Your task to perform on an android device: Open Wikipedia Image 0: 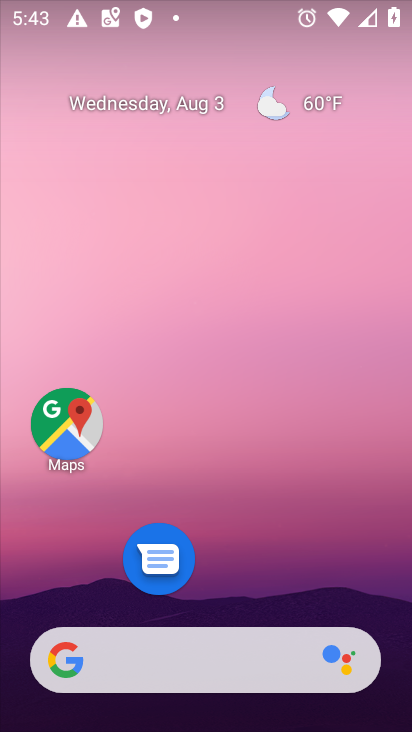
Step 0: drag from (238, 622) to (249, 122)
Your task to perform on an android device: Open Wikipedia Image 1: 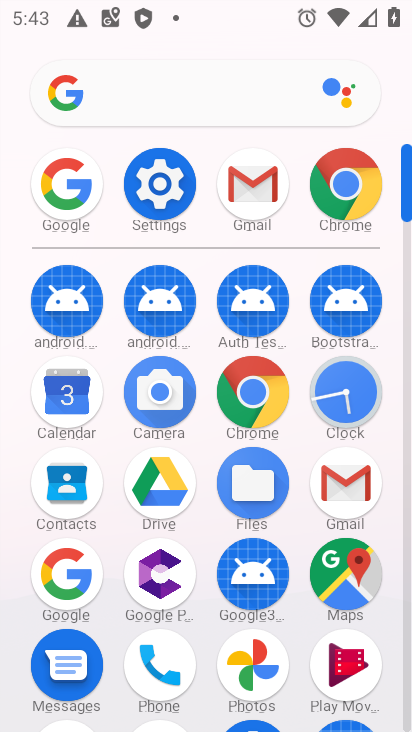
Step 1: click (261, 393)
Your task to perform on an android device: Open Wikipedia Image 2: 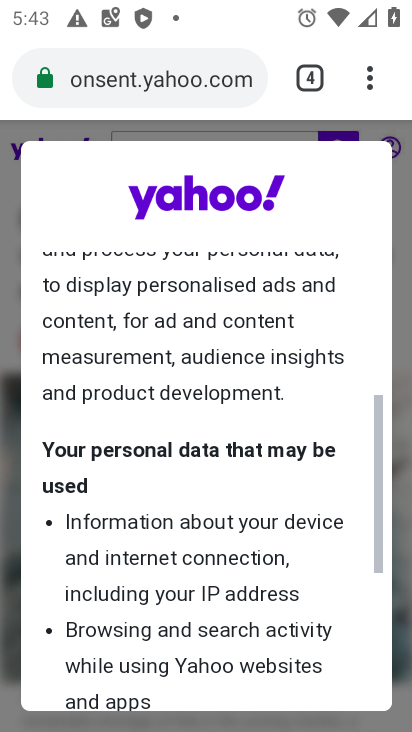
Step 2: click (302, 71)
Your task to perform on an android device: Open Wikipedia Image 3: 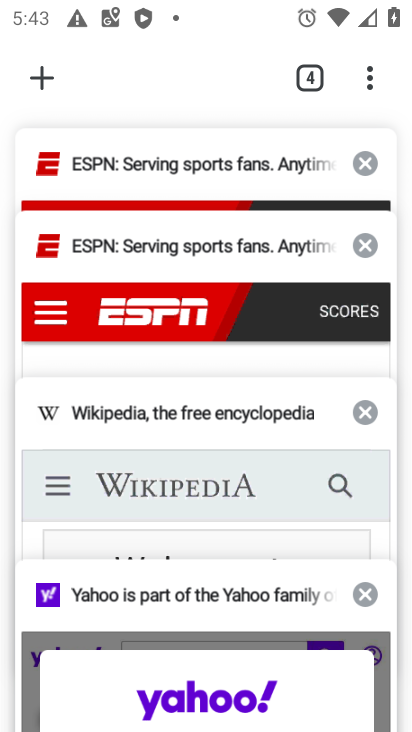
Step 3: click (363, 158)
Your task to perform on an android device: Open Wikipedia Image 4: 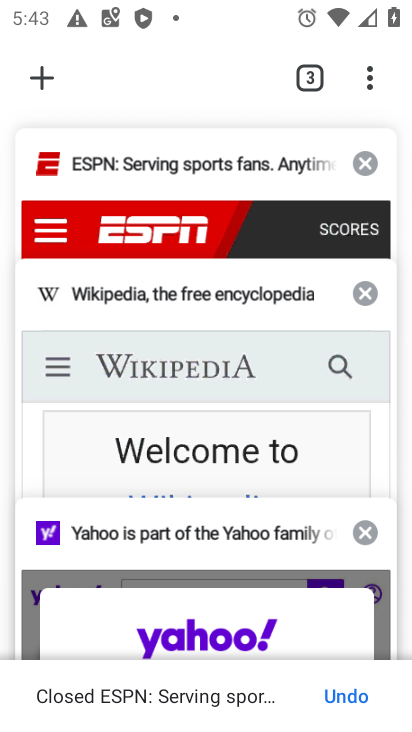
Step 4: click (364, 170)
Your task to perform on an android device: Open Wikipedia Image 5: 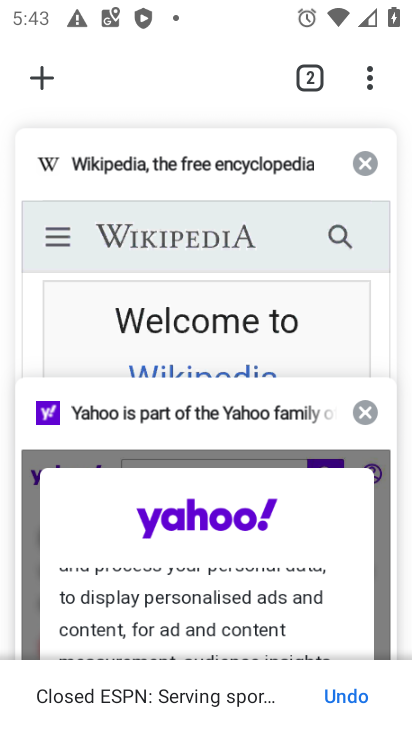
Step 5: click (364, 170)
Your task to perform on an android device: Open Wikipedia Image 6: 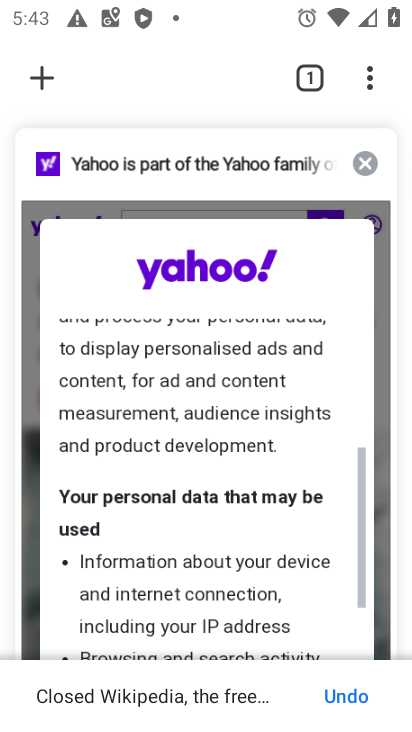
Step 6: click (364, 170)
Your task to perform on an android device: Open Wikipedia Image 7: 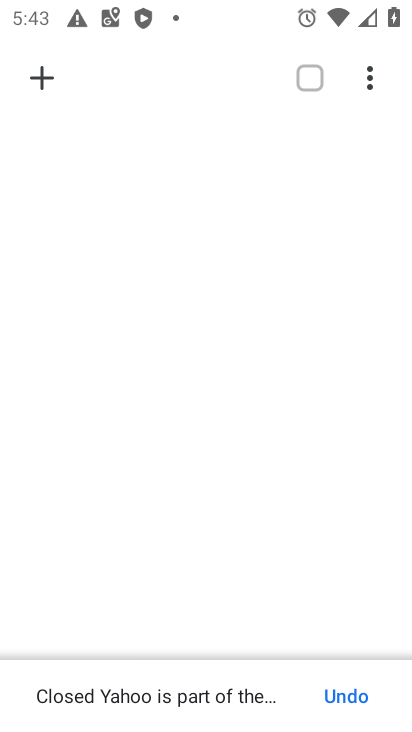
Step 7: click (43, 80)
Your task to perform on an android device: Open Wikipedia Image 8: 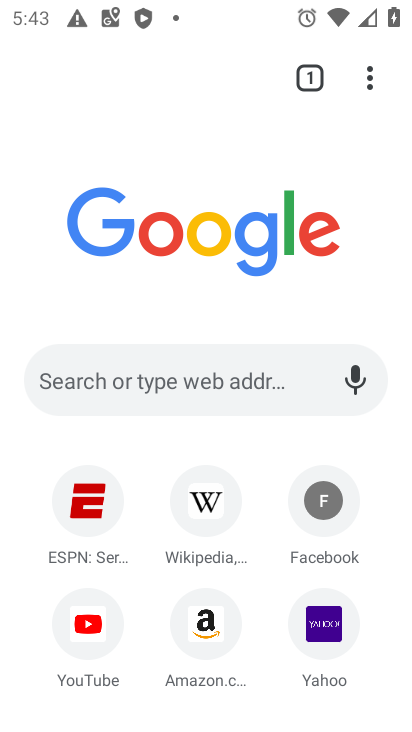
Step 8: click (219, 502)
Your task to perform on an android device: Open Wikipedia Image 9: 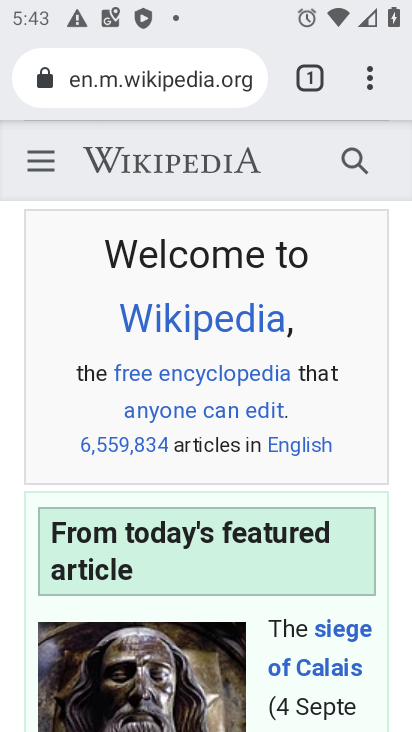
Step 9: task complete